Your task to perform on an android device: Check the weather Image 0: 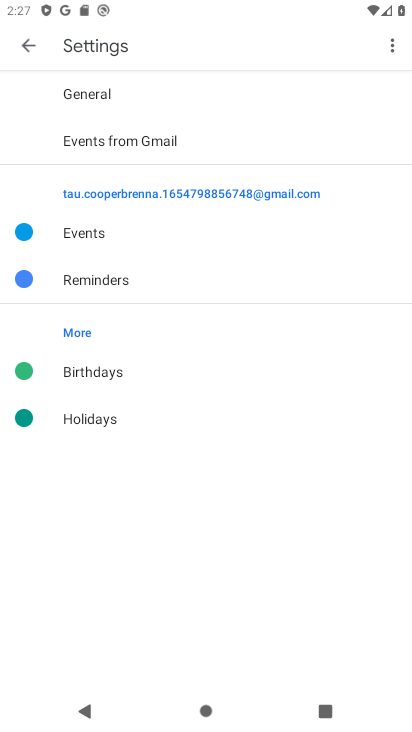
Step 0: press back button
Your task to perform on an android device: Check the weather Image 1: 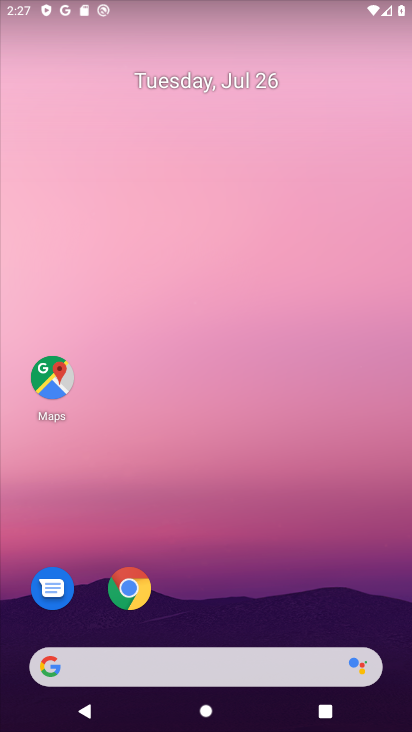
Step 1: drag from (227, 538) to (317, 10)
Your task to perform on an android device: Check the weather Image 2: 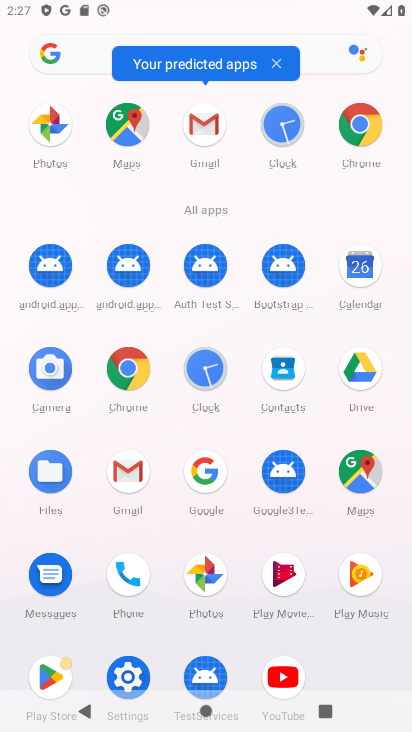
Step 2: click (127, 671)
Your task to perform on an android device: Check the weather Image 3: 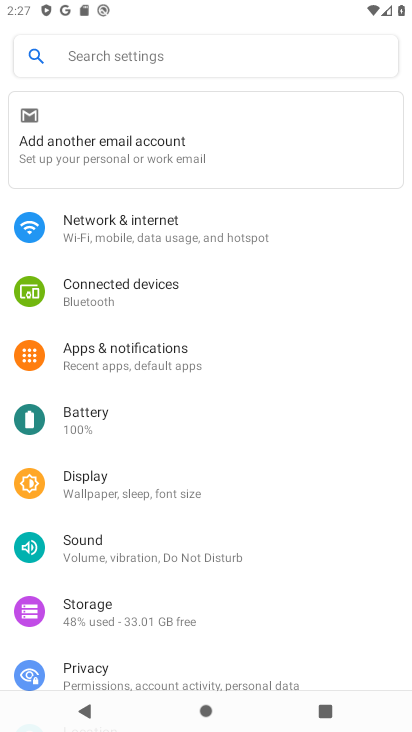
Step 3: click (141, 485)
Your task to perform on an android device: Check the weather Image 4: 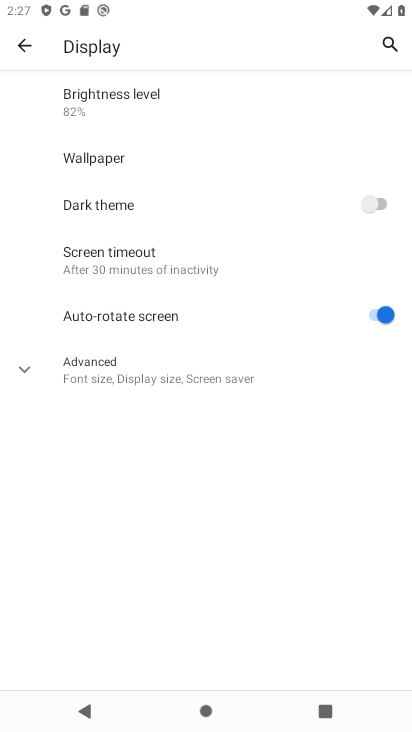
Step 4: click (95, 360)
Your task to perform on an android device: Check the weather Image 5: 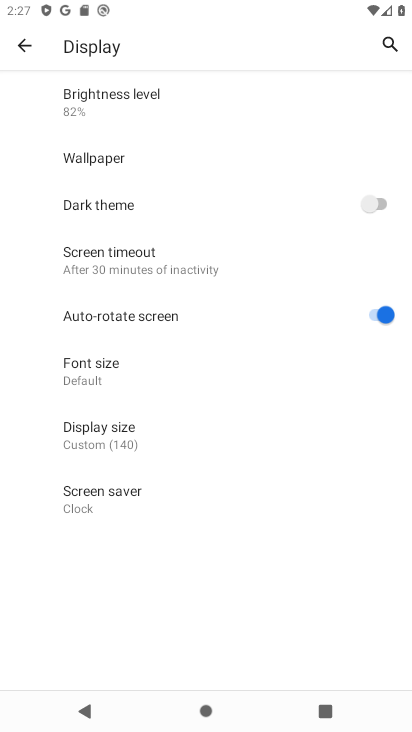
Step 5: click (108, 423)
Your task to perform on an android device: Check the weather Image 6: 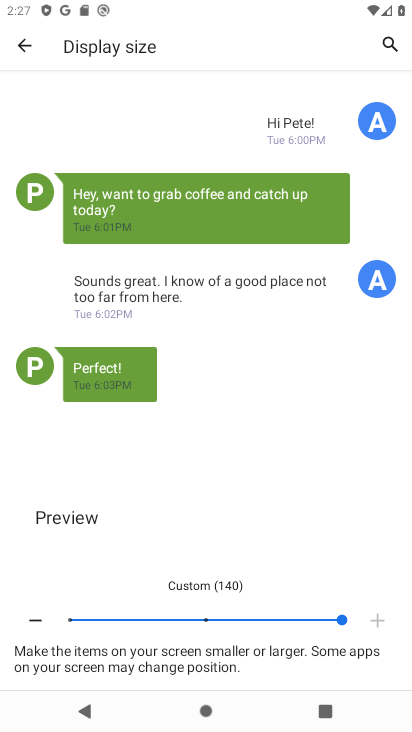
Step 6: click (209, 623)
Your task to perform on an android device: Check the weather Image 7: 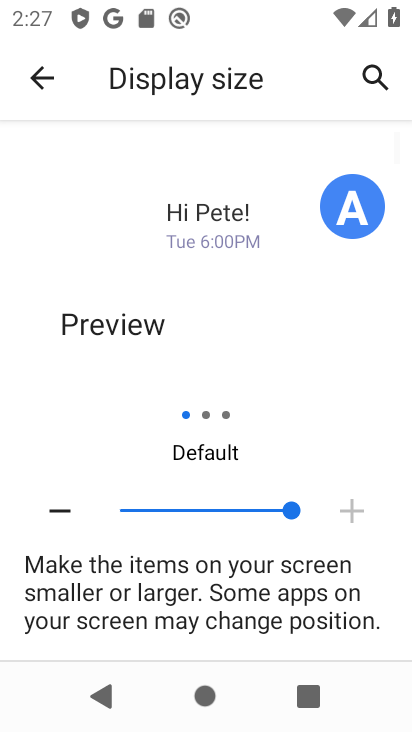
Step 7: click (32, 44)
Your task to perform on an android device: Check the weather Image 8: 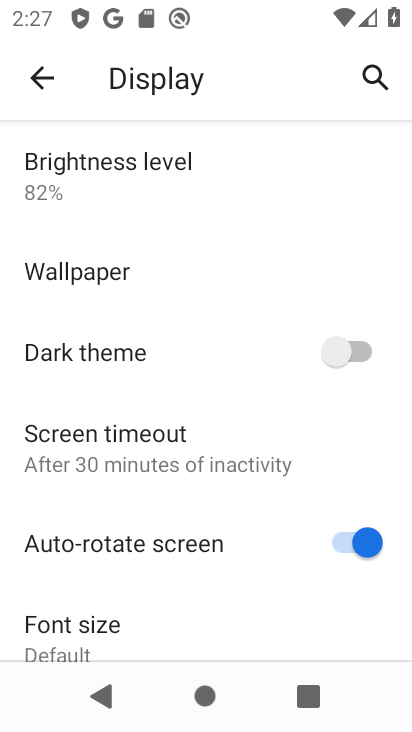
Step 8: click (31, 74)
Your task to perform on an android device: Check the weather Image 9: 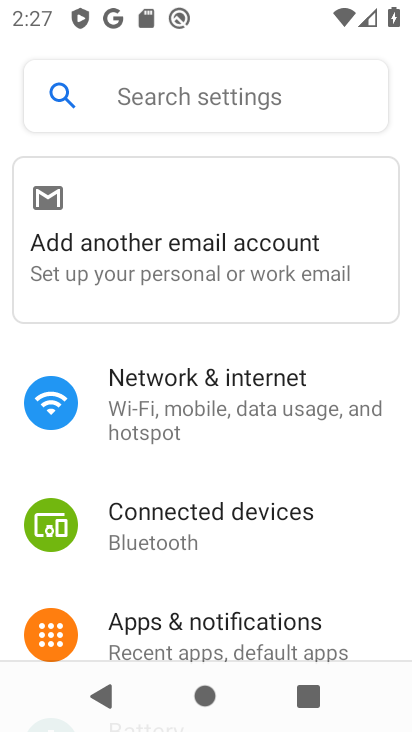
Step 9: press back button
Your task to perform on an android device: Check the weather Image 10: 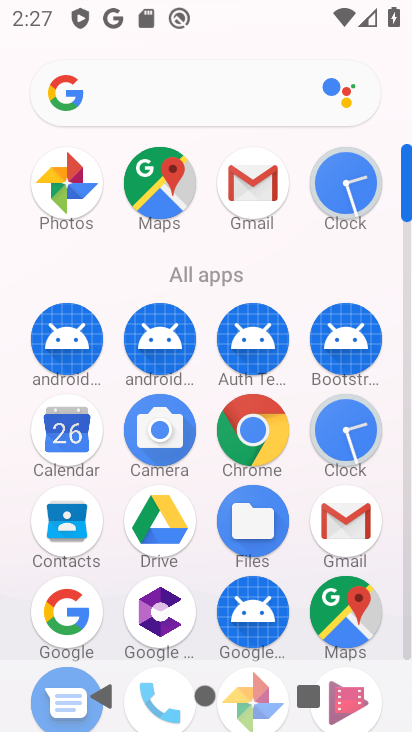
Step 10: click (149, 95)
Your task to perform on an android device: Check the weather Image 11: 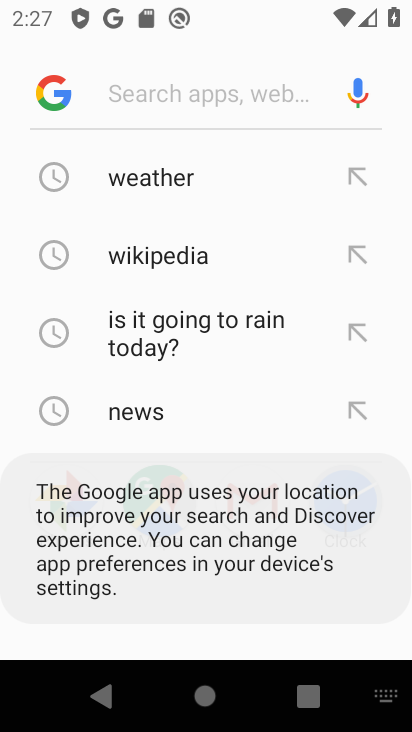
Step 11: click (170, 180)
Your task to perform on an android device: Check the weather Image 12: 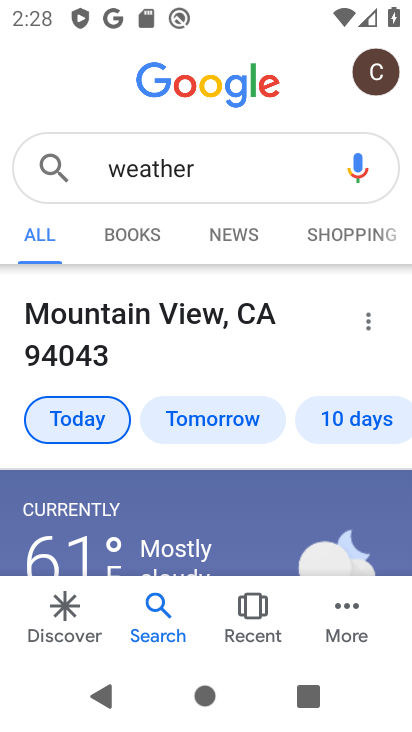
Step 12: task complete